Your task to perform on an android device: Open internet settings Image 0: 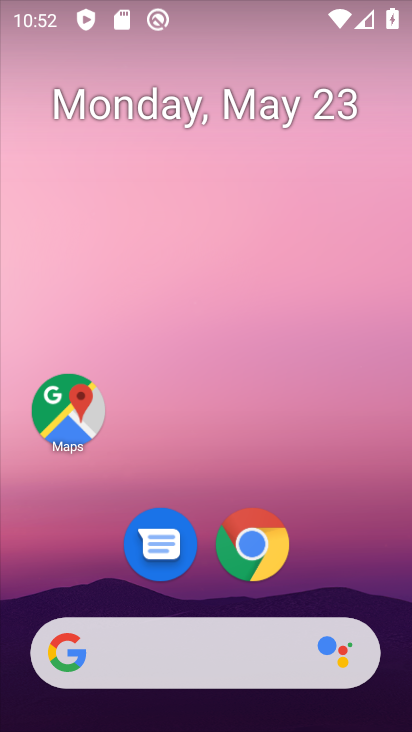
Step 0: drag from (383, 611) to (347, 68)
Your task to perform on an android device: Open internet settings Image 1: 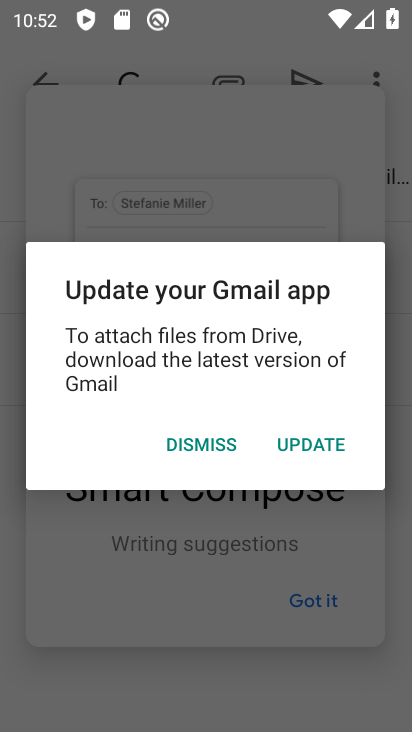
Step 1: press home button
Your task to perform on an android device: Open internet settings Image 2: 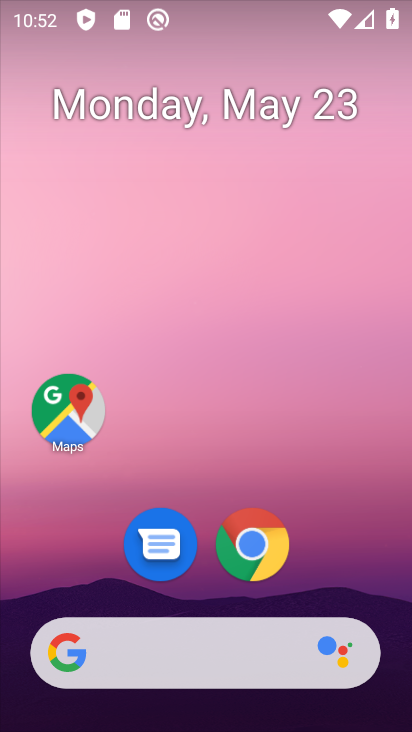
Step 2: drag from (387, 607) to (342, 11)
Your task to perform on an android device: Open internet settings Image 3: 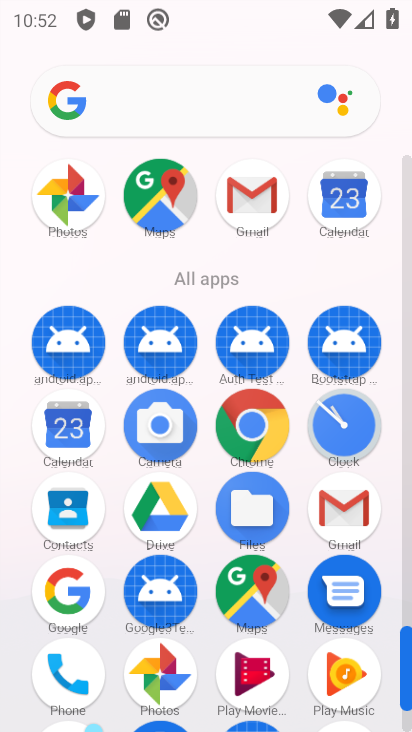
Step 3: click (406, 723)
Your task to perform on an android device: Open internet settings Image 4: 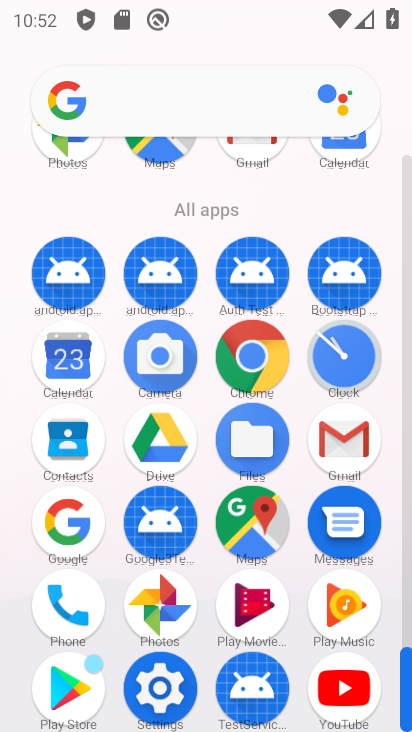
Step 4: click (163, 689)
Your task to perform on an android device: Open internet settings Image 5: 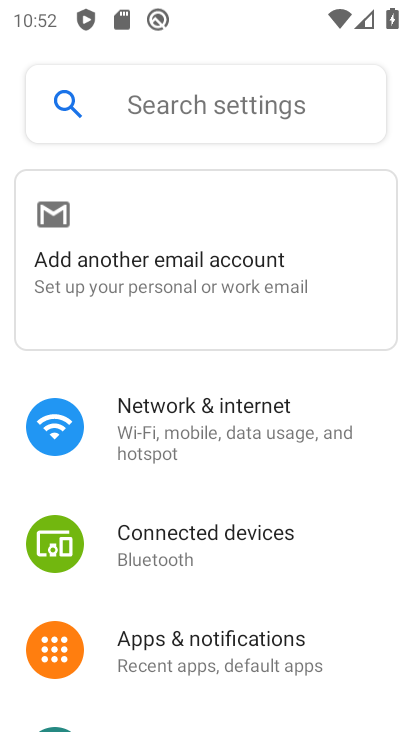
Step 5: click (204, 429)
Your task to perform on an android device: Open internet settings Image 6: 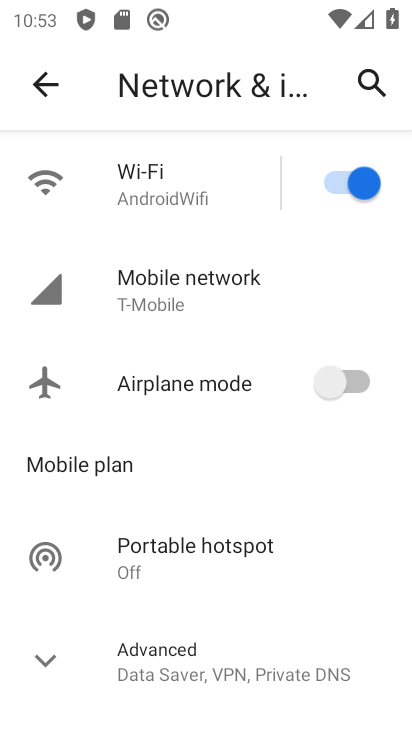
Step 6: click (158, 301)
Your task to perform on an android device: Open internet settings Image 7: 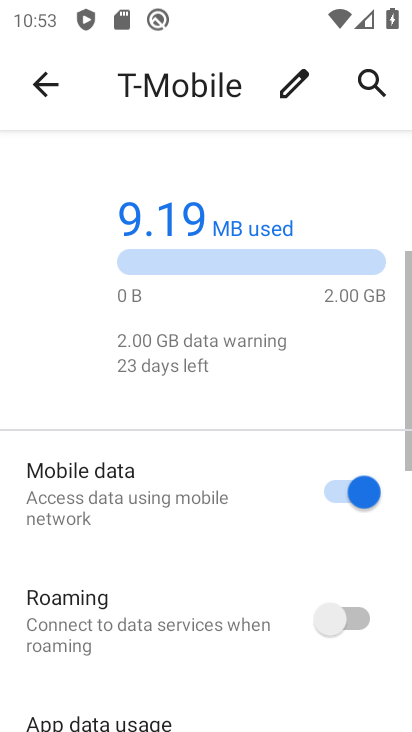
Step 7: task complete